Your task to perform on an android device: Show me popular videos on Youtube Image 0: 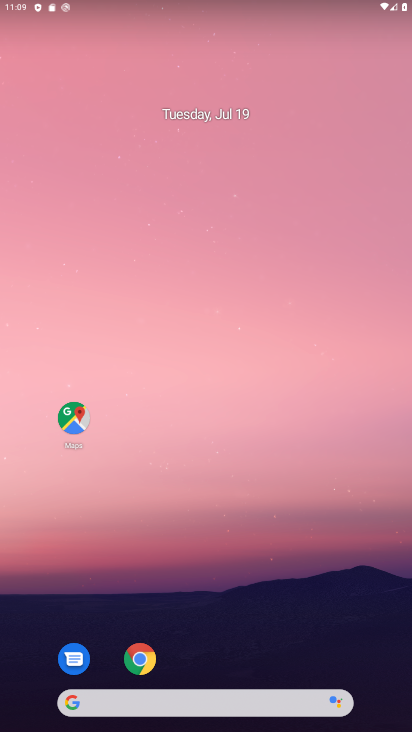
Step 0: drag from (303, 616) to (187, 171)
Your task to perform on an android device: Show me popular videos on Youtube Image 1: 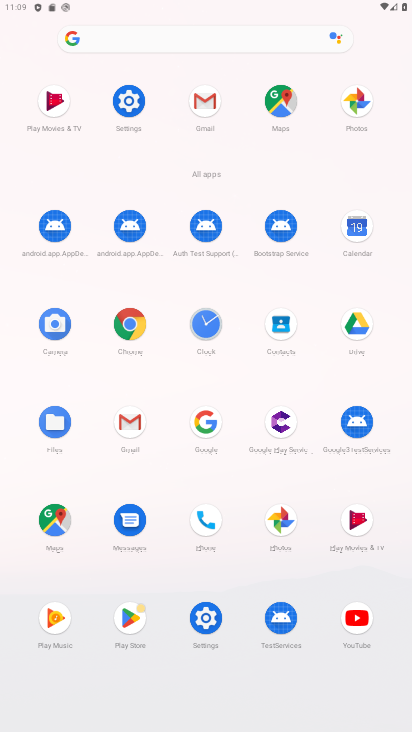
Step 1: drag from (300, 169) to (253, 47)
Your task to perform on an android device: Show me popular videos on Youtube Image 2: 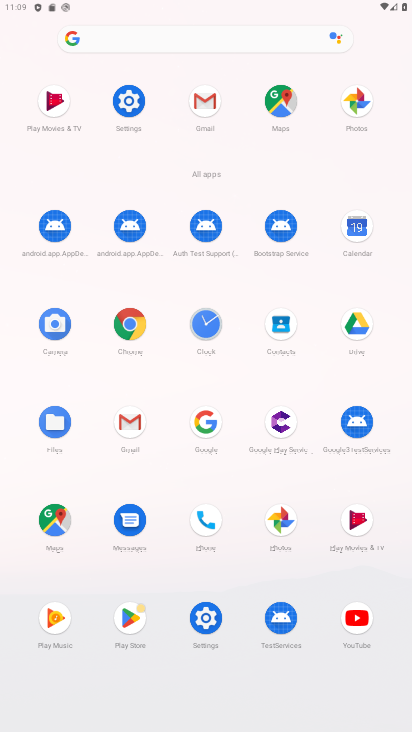
Step 2: click (352, 612)
Your task to perform on an android device: Show me popular videos on Youtube Image 3: 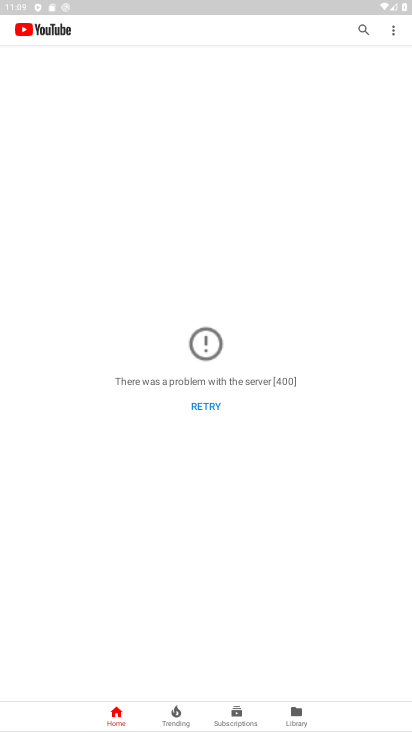
Step 3: click (300, 720)
Your task to perform on an android device: Show me popular videos on Youtube Image 4: 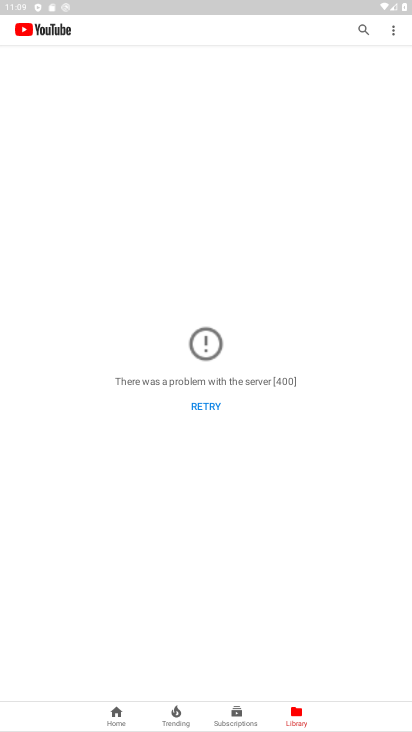
Step 4: task complete